Your task to perform on an android device: turn on notifications settings in the gmail app Image 0: 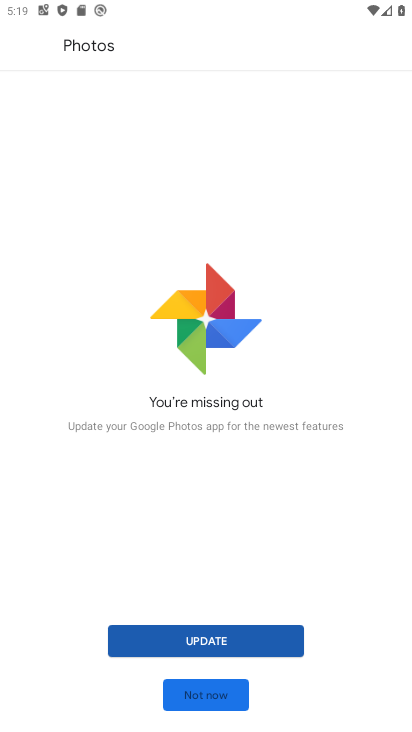
Step 0: press home button
Your task to perform on an android device: turn on notifications settings in the gmail app Image 1: 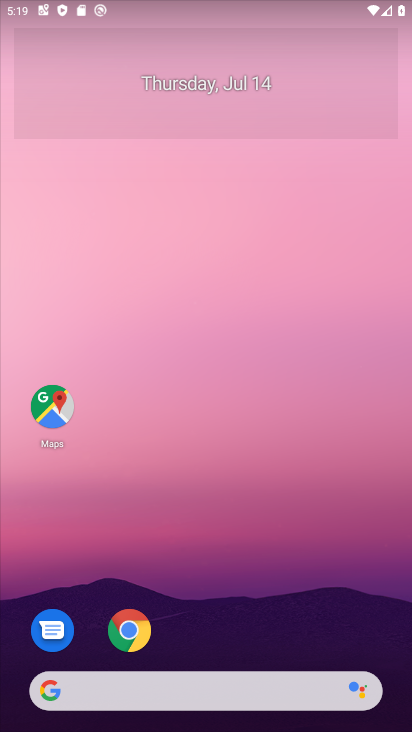
Step 1: click (291, 292)
Your task to perform on an android device: turn on notifications settings in the gmail app Image 2: 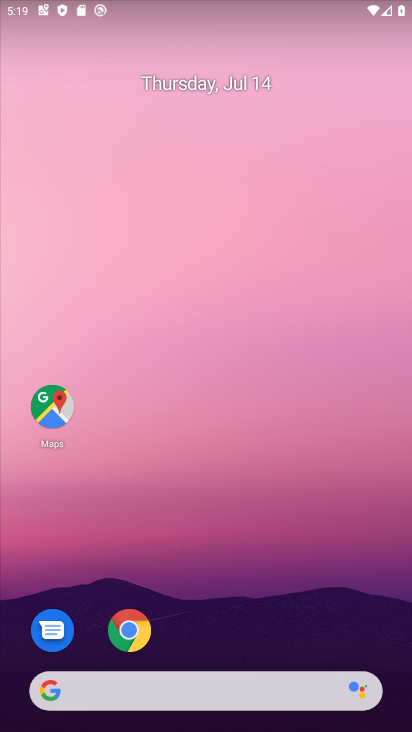
Step 2: drag from (249, 627) to (269, 284)
Your task to perform on an android device: turn on notifications settings in the gmail app Image 3: 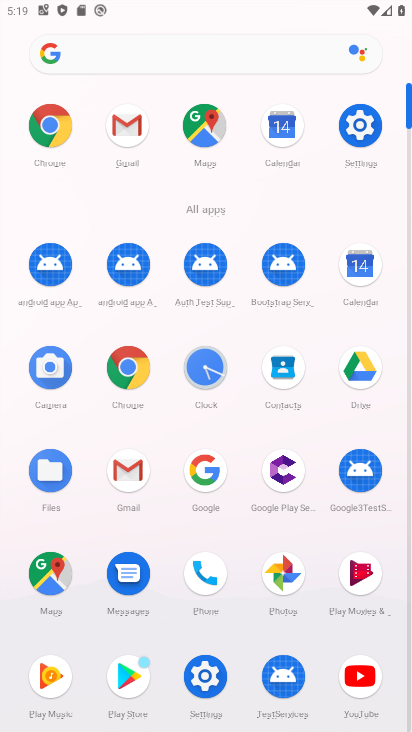
Step 3: click (114, 124)
Your task to perform on an android device: turn on notifications settings in the gmail app Image 4: 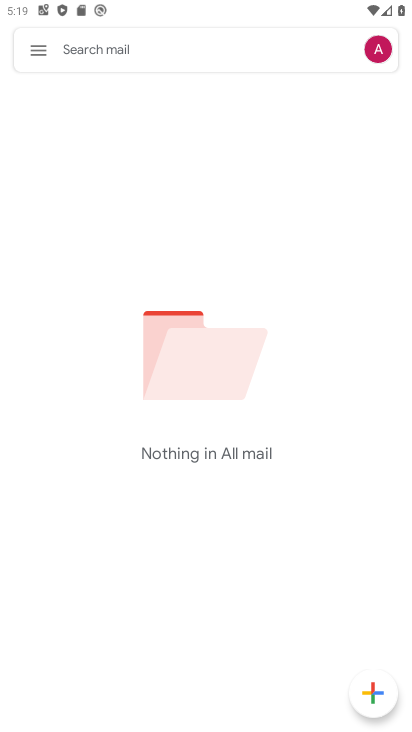
Step 4: click (31, 46)
Your task to perform on an android device: turn on notifications settings in the gmail app Image 5: 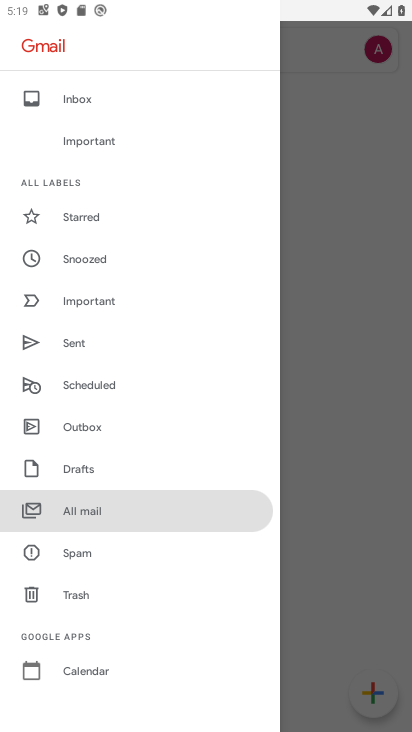
Step 5: drag from (200, 647) to (251, 17)
Your task to perform on an android device: turn on notifications settings in the gmail app Image 6: 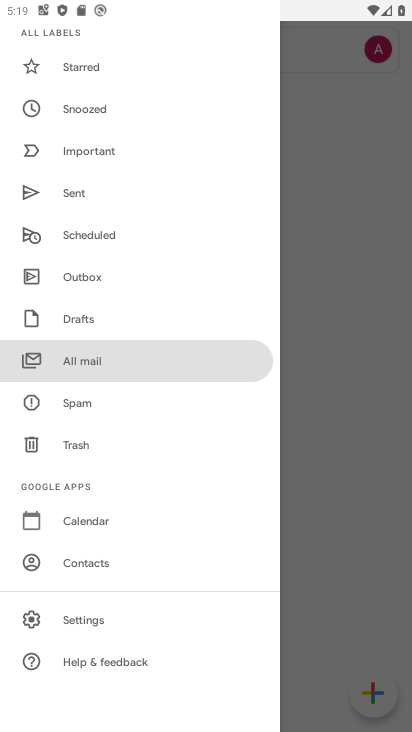
Step 6: click (83, 626)
Your task to perform on an android device: turn on notifications settings in the gmail app Image 7: 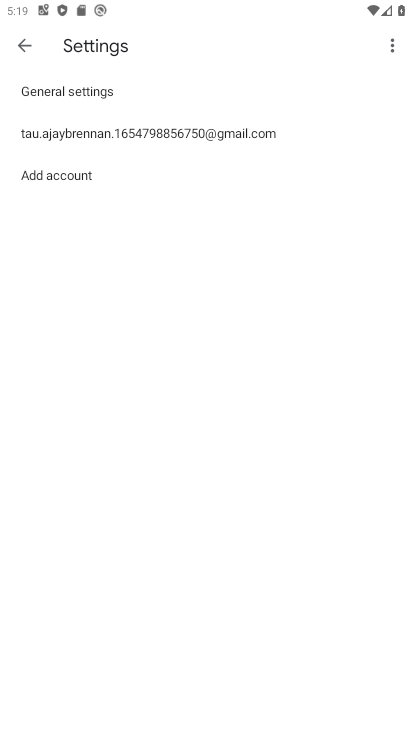
Step 7: click (89, 84)
Your task to perform on an android device: turn on notifications settings in the gmail app Image 8: 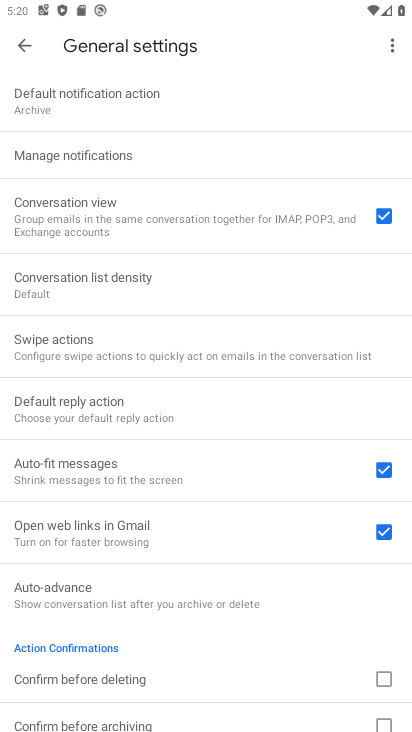
Step 8: click (66, 158)
Your task to perform on an android device: turn on notifications settings in the gmail app Image 9: 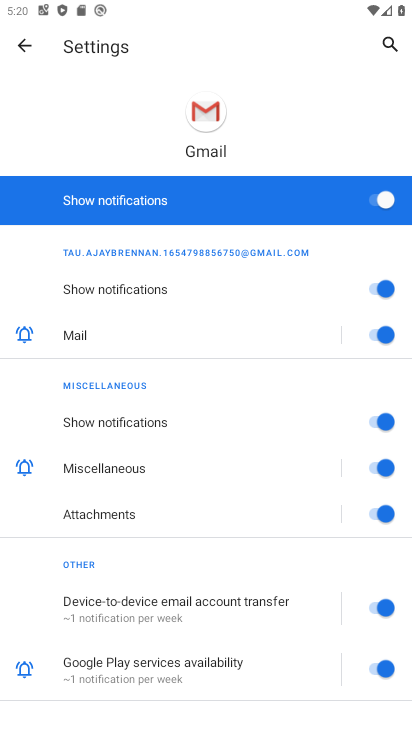
Step 9: task complete